Your task to perform on an android device: find which apps use the phone's location Image 0: 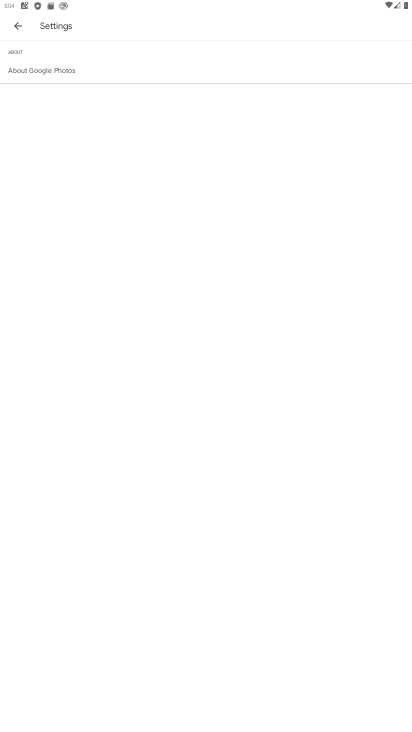
Step 0: press home button
Your task to perform on an android device: find which apps use the phone's location Image 1: 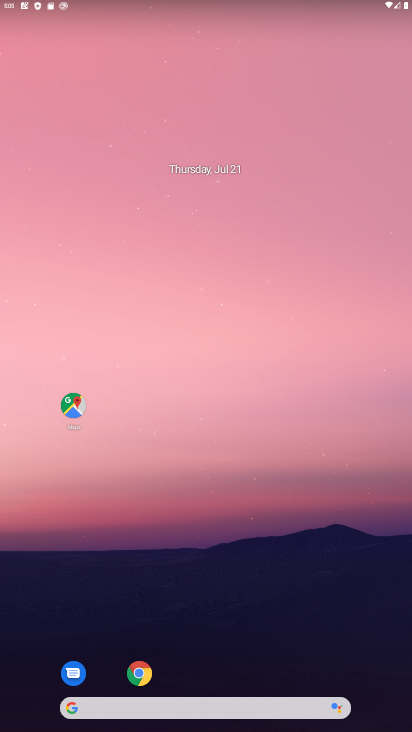
Step 1: drag from (275, 596) to (248, 177)
Your task to perform on an android device: find which apps use the phone's location Image 2: 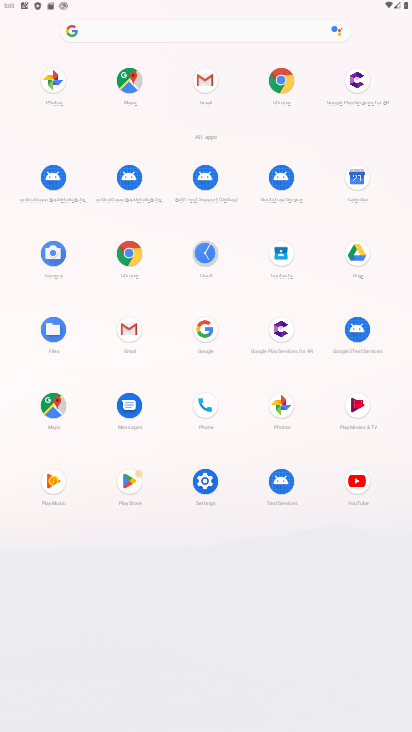
Step 2: click (207, 487)
Your task to perform on an android device: find which apps use the phone's location Image 3: 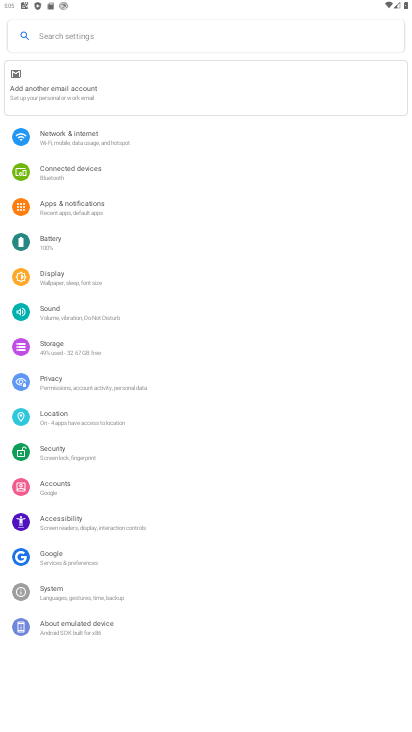
Step 3: click (66, 415)
Your task to perform on an android device: find which apps use the phone's location Image 4: 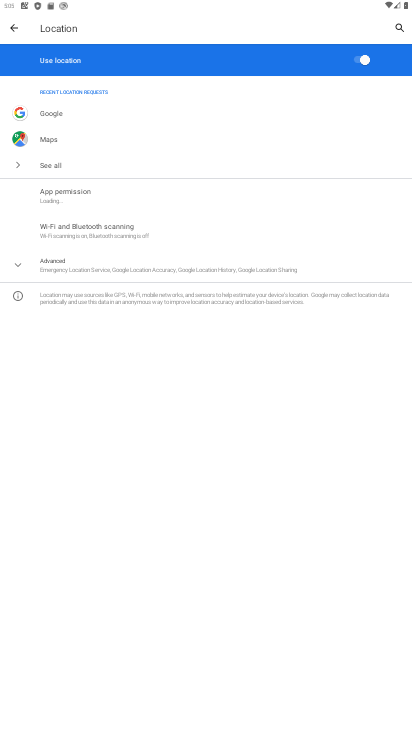
Step 4: task complete